Your task to perform on an android device: Open battery settings Image 0: 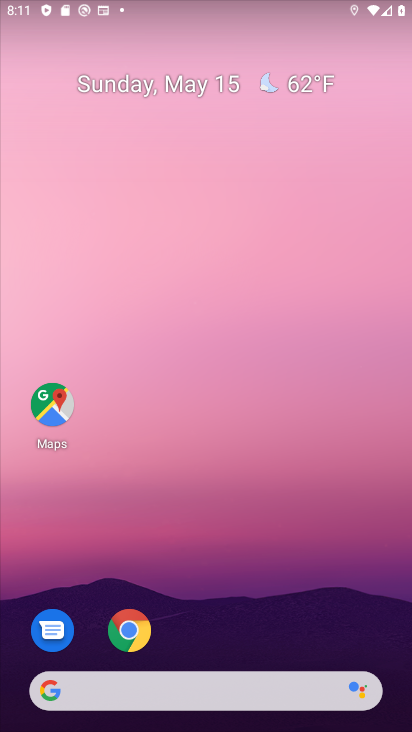
Step 0: drag from (194, 532) to (314, 99)
Your task to perform on an android device: Open battery settings Image 1: 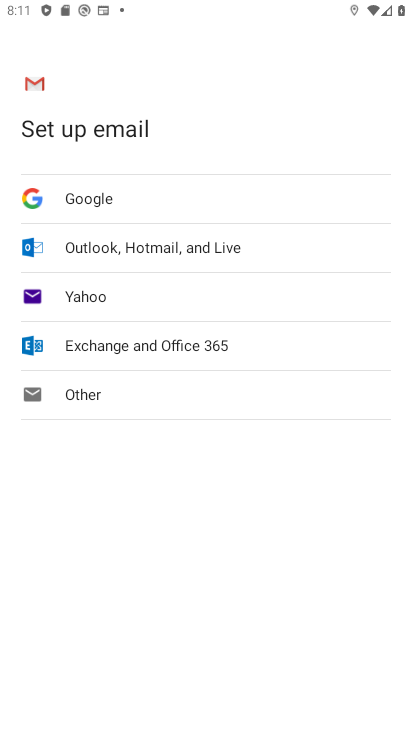
Step 1: press home button
Your task to perform on an android device: Open battery settings Image 2: 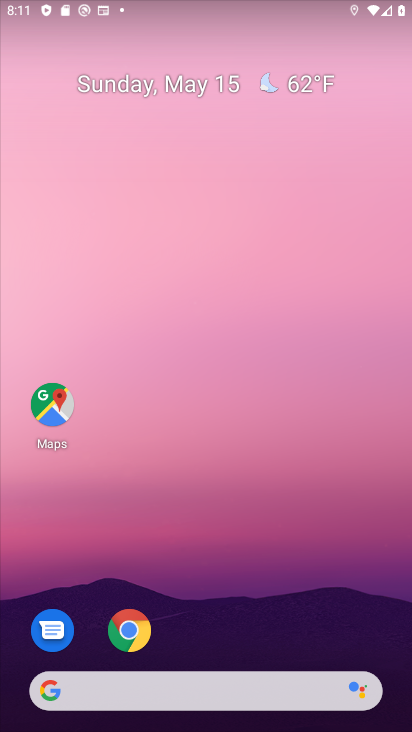
Step 2: drag from (216, 637) to (299, 117)
Your task to perform on an android device: Open battery settings Image 3: 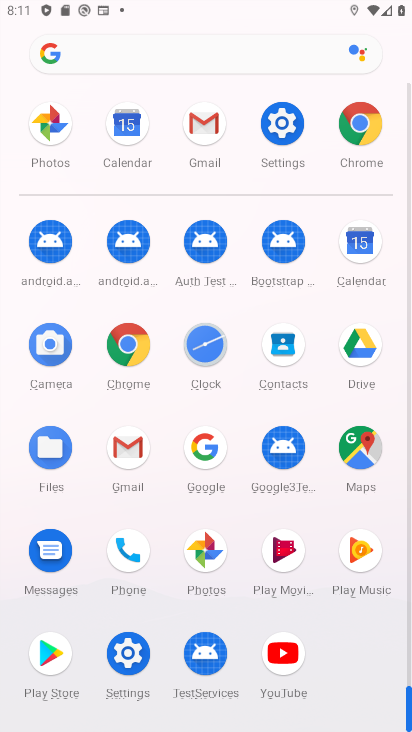
Step 3: click (284, 125)
Your task to perform on an android device: Open battery settings Image 4: 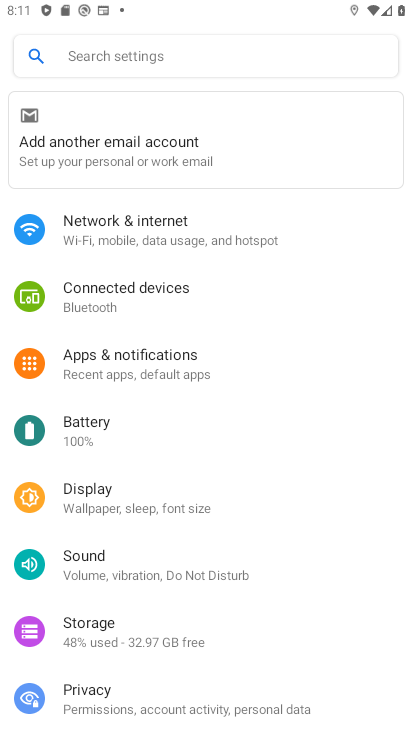
Step 4: click (109, 427)
Your task to perform on an android device: Open battery settings Image 5: 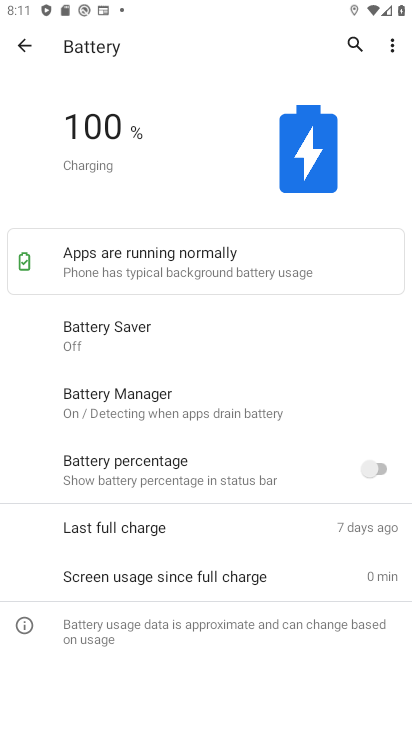
Step 5: task complete